Your task to perform on an android device: find photos in the google photos app Image 0: 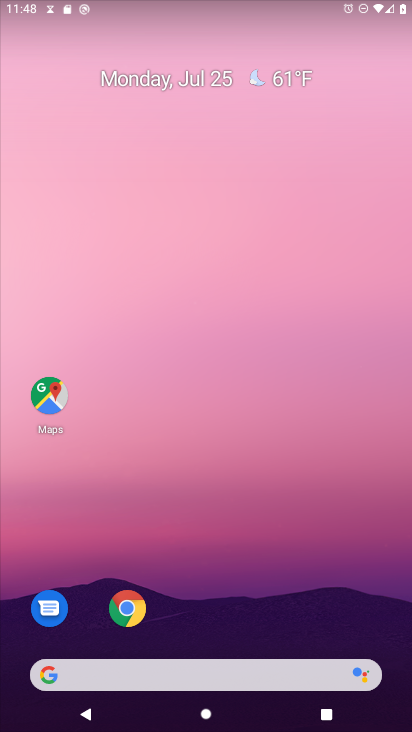
Step 0: drag from (207, 674) to (265, 195)
Your task to perform on an android device: find photos in the google photos app Image 1: 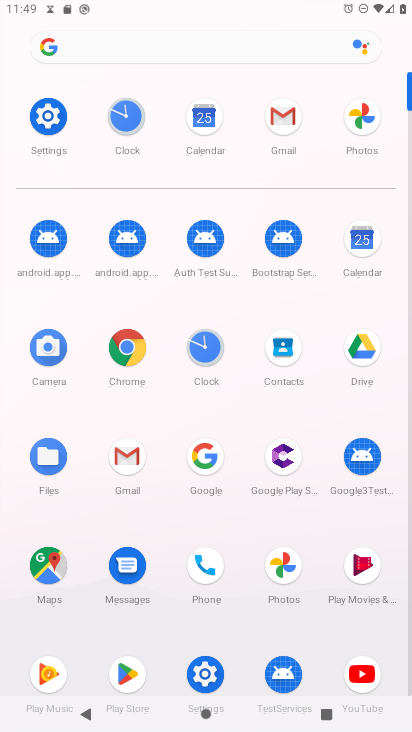
Step 1: click (281, 563)
Your task to perform on an android device: find photos in the google photos app Image 2: 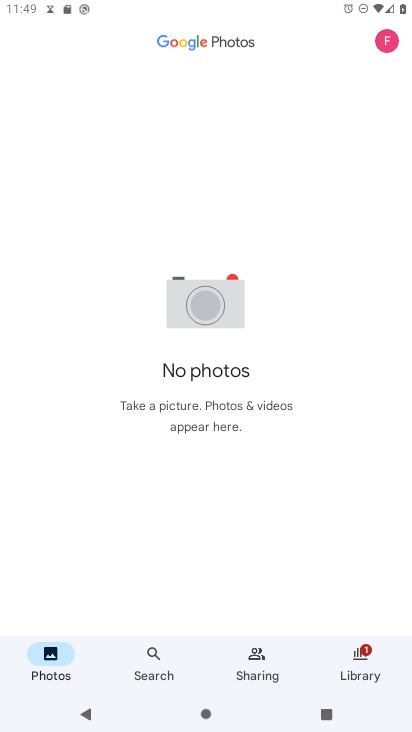
Step 2: click (149, 657)
Your task to perform on an android device: find photos in the google photos app Image 3: 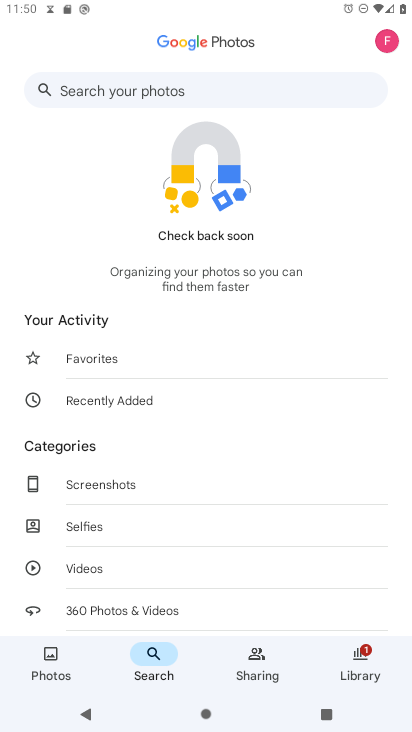
Step 3: drag from (128, 584) to (182, 436)
Your task to perform on an android device: find photos in the google photos app Image 4: 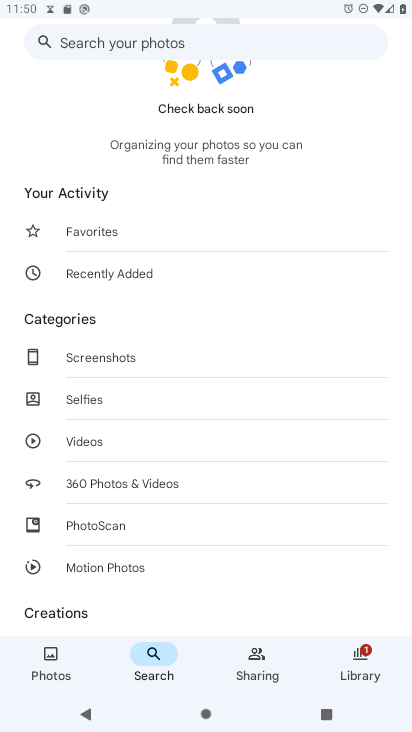
Step 4: drag from (144, 550) to (186, 389)
Your task to perform on an android device: find photos in the google photos app Image 5: 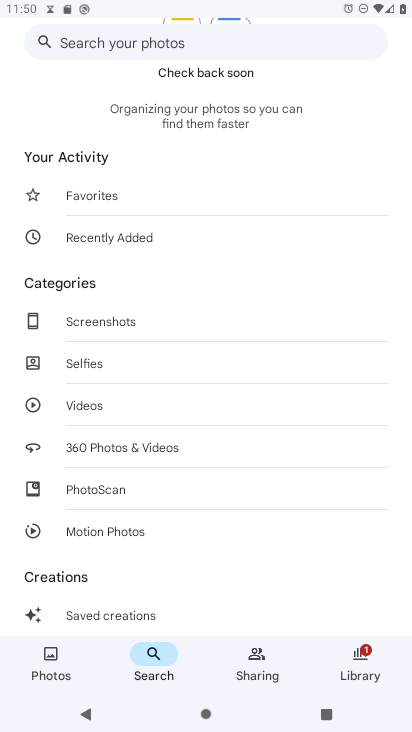
Step 5: click (86, 362)
Your task to perform on an android device: find photos in the google photos app Image 6: 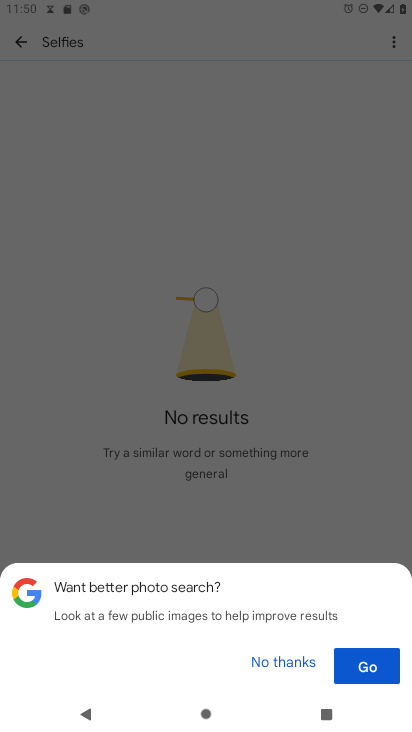
Step 6: click (273, 663)
Your task to perform on an android device: find photos in the google photos app Image 7: 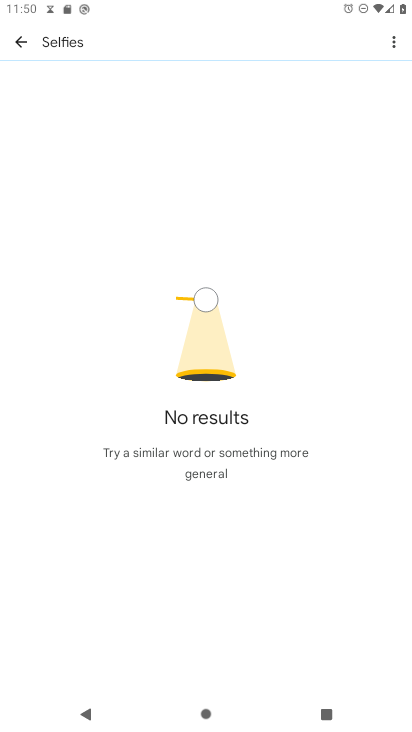
Step 7: task complete